Your task to perform on an android device: Is it going to rain this weekend? Image 0: 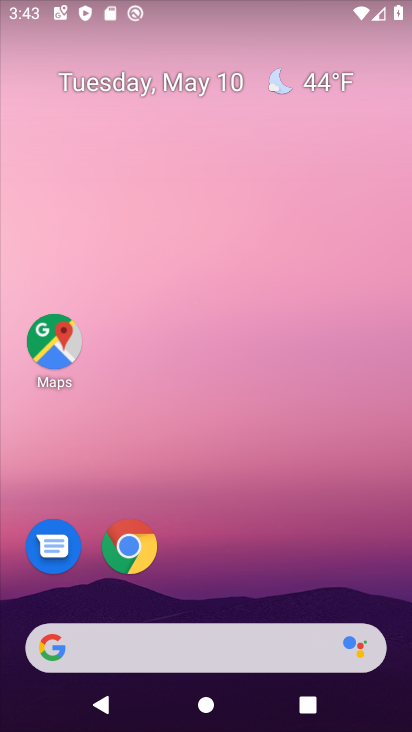
Step 0: click (291, 80)
Your task to perform on an android device: Is it going to rain this weekend? Image 1: 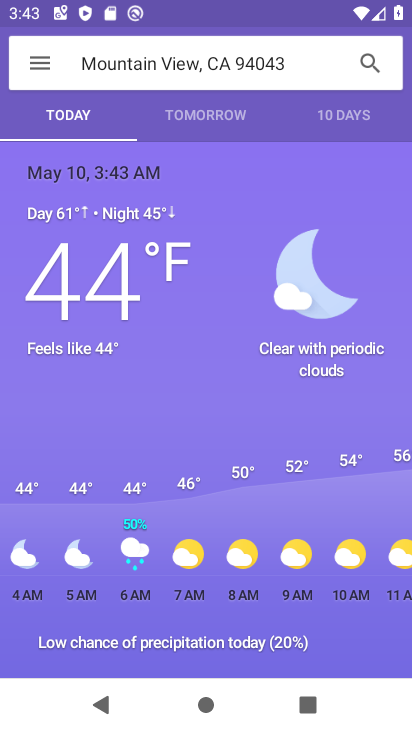
Step 1: click (323, 112)
Your task to perform on an android device: Is it going to rain this weekend? Image 2: 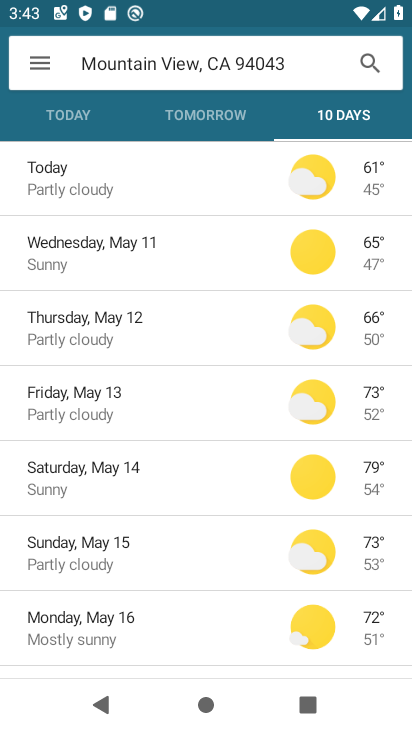
Step 2: task complete